Your task to perform on an android device: delete browsing data in the chrome app Image 0: 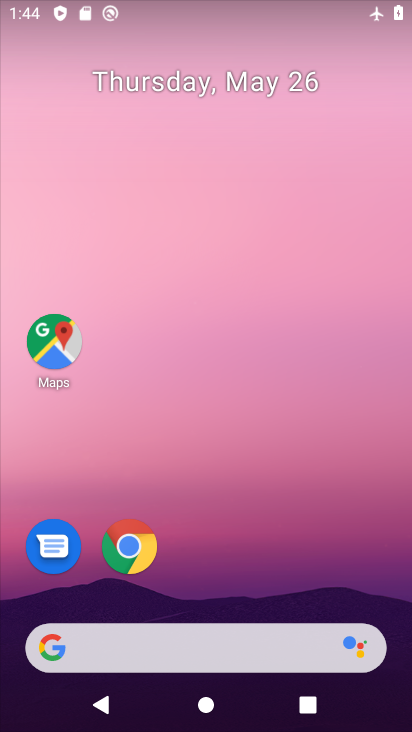
Step 0: click (118, 536)
Your task to perform on an android device: delete browsing data in the chrome app Image 1: 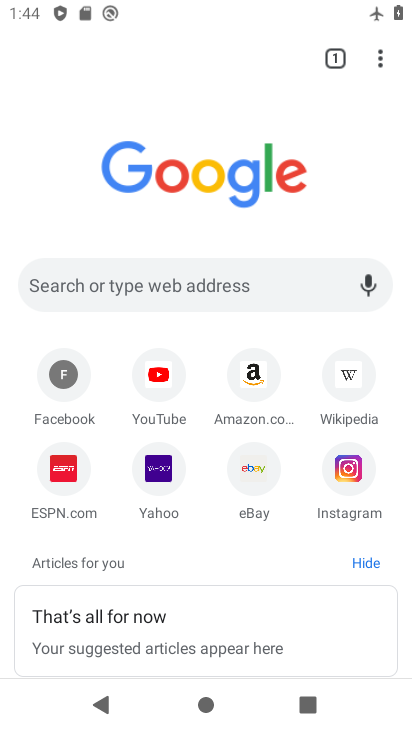
Step 1: click (376, 58)
Your task to perform on an android device: delete browsing data in the chrome app Image 2: 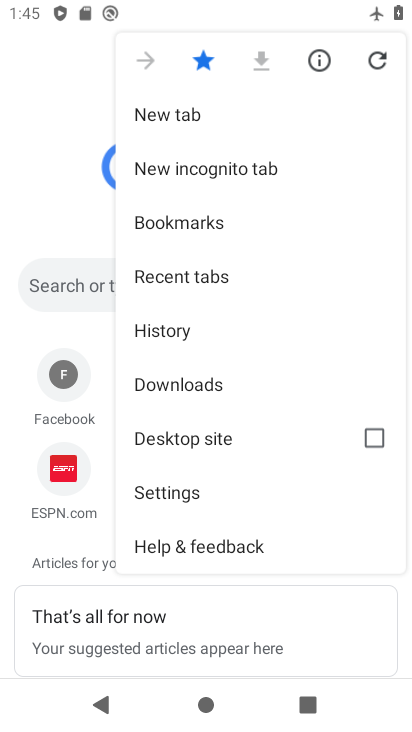
Step 2: click (192, 493)
Your task to perform on an android device: delete browsing data in the chrome app Image 3: 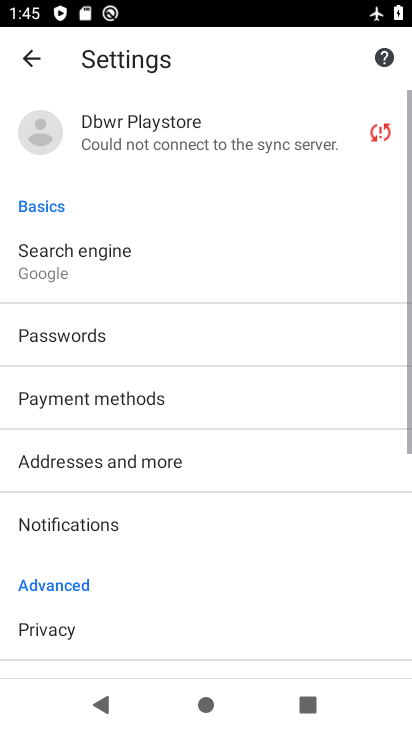
Step 3: drag from (164, 606) to (209, 415)
Your task to perform on an android device: delete browsing data in the chrome app Image 4: 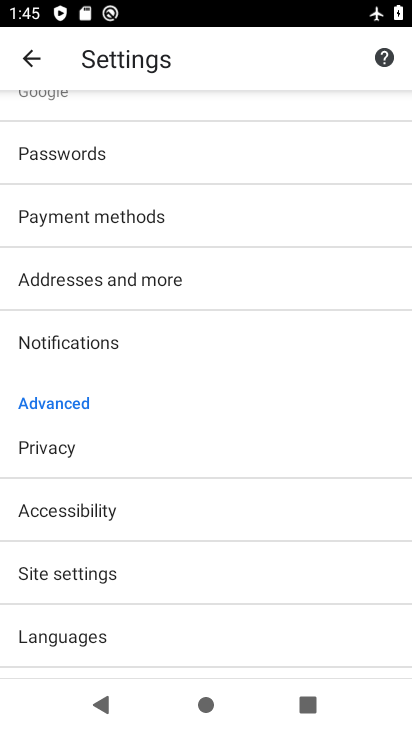
Step 4: click (90, 467)
Your task to perform on an android device: delete browsing data in the chrome app Image 5: 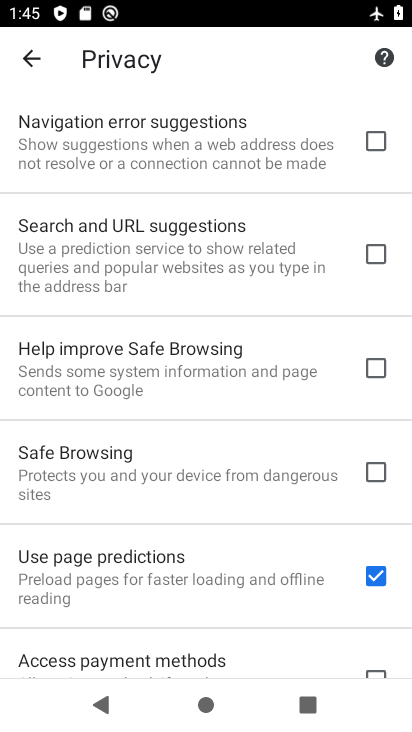
Step 5: drag from (194, 586) to (244, 54)
Your task to perform on an android device: delete browsing data in the chrome app Image 6: 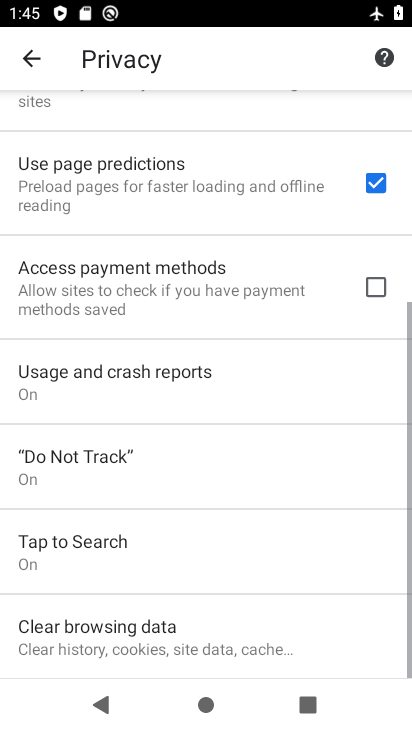
Step 6: drag from (174, 583) to (217, 252)
Your task to perform on an android device: delete browsing data in the chrome app Image 7: 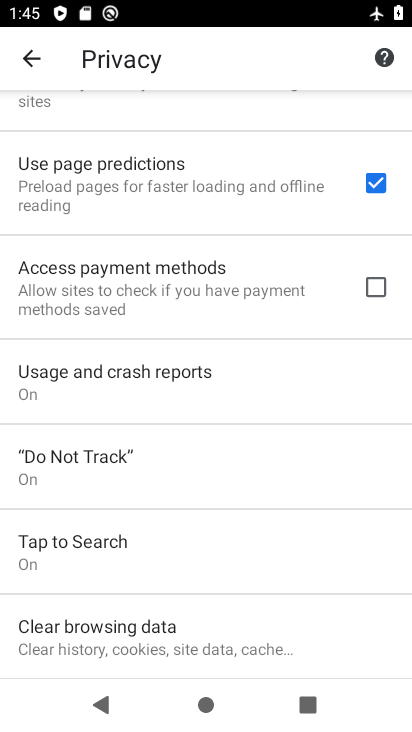
Step 7: click (151, 626)
Your task to perform on an android device: delete browsing data in the chrome app Image 8: 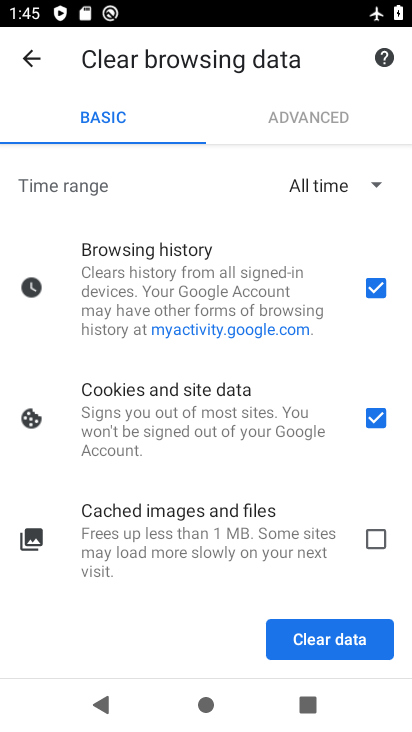
Step 8: click (371, 414)
Your task to perform on an android device: delete browsing data in the chrome app Image 9: 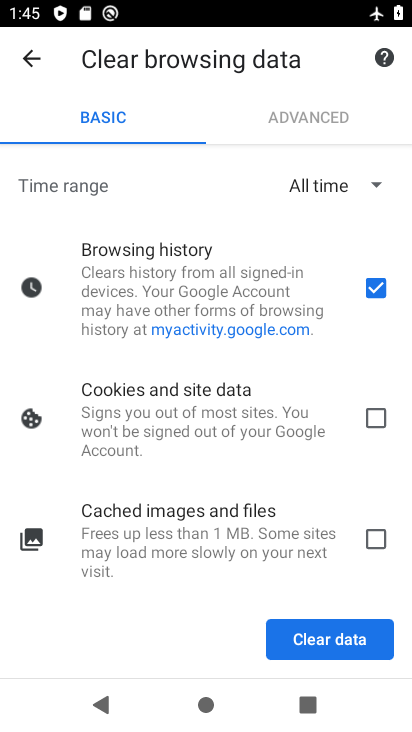
Step 9: click (332, 638)
Your task to perform on an android device: delete browsing data in the chrome app Image 10: 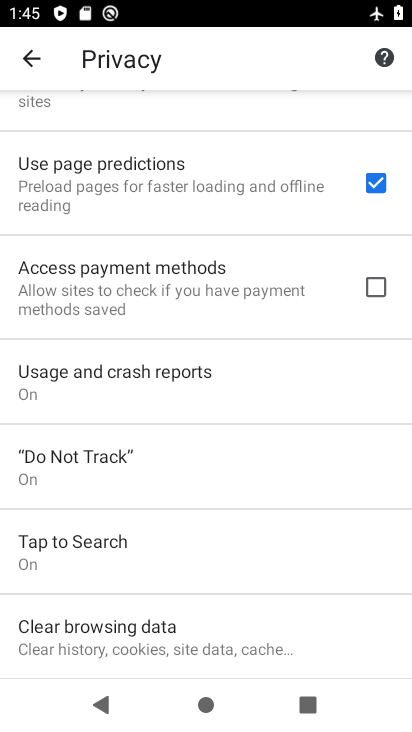
Step 10: task complete